Your task to perform on an android device: Open accessibility settings Image 0: 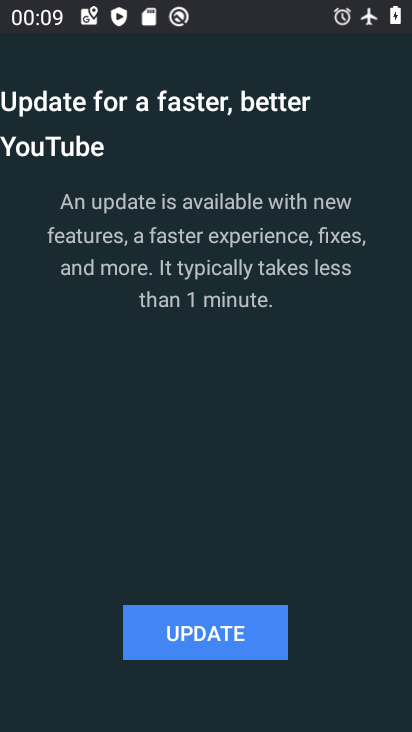
Step 0: press home button
Your task to perform on an android device: Open accessibility settings Image 1: 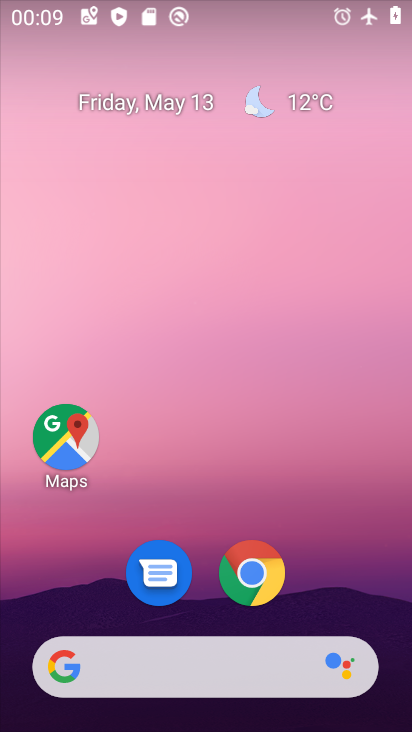
Step 1: drag from (250, 720) to (229, 65)
Your task to perform on an android device: Open accessibility settings Image 2: 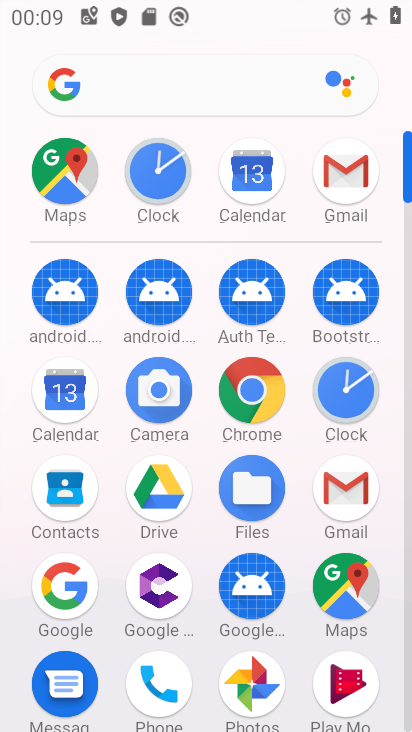
Step 2: drag from (219, 559) to (285, 11)
Your task to perform on an android device: Open accessibility settings Image 3: 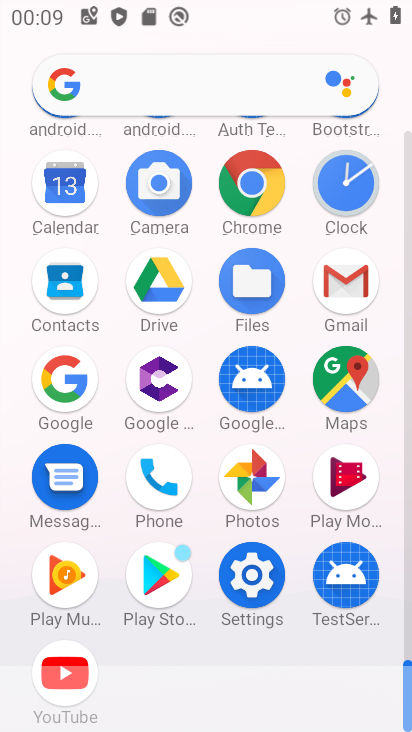
Step 3: click (275, 576)
Your task to perform on an android device: Open accessibility settings Image 4: 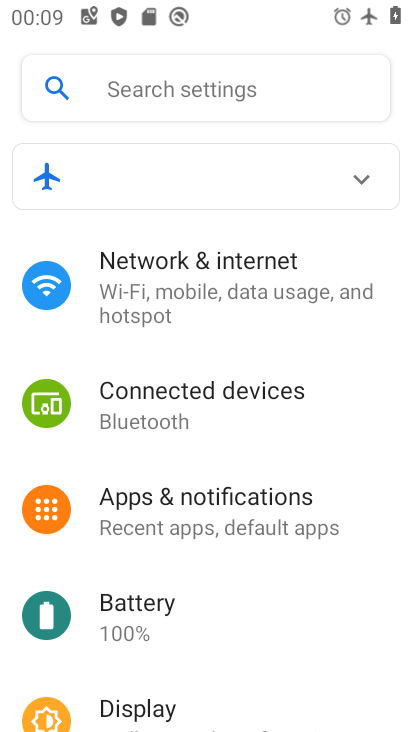
Step 4: drag from (264, 427) to (264, 81)
Your task to perform on an android device: Open accessibility settings Image 5: 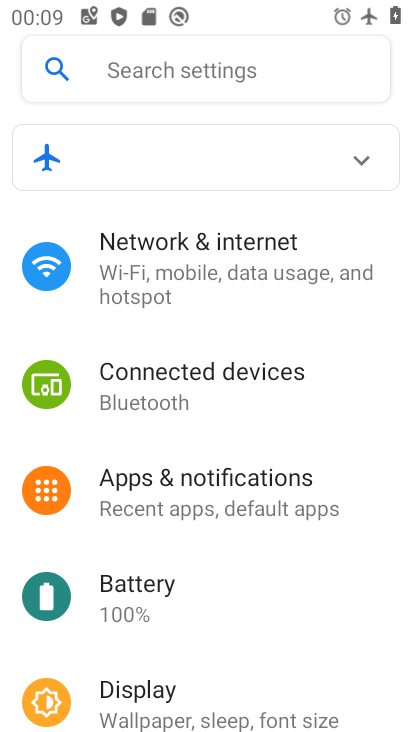
Step 5: drag from (210, 631) to (192, 296)
Your task to perform on an android device: Open accessibility settings Image 6: 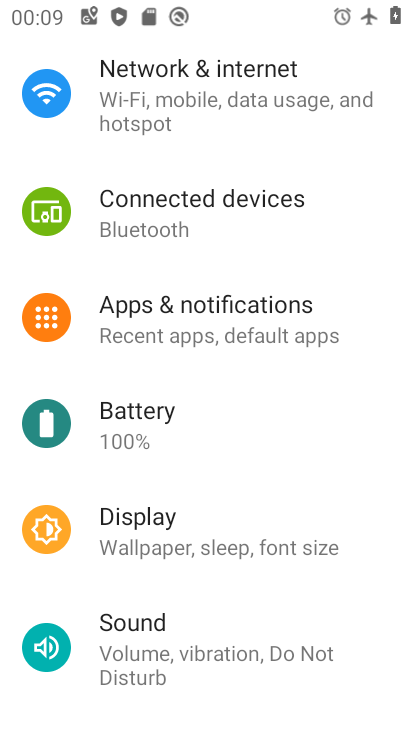
Step 6: drag from (220, 713) to (288, 271)
Your task to perform on an android device: Open accessibility settings Image 7: 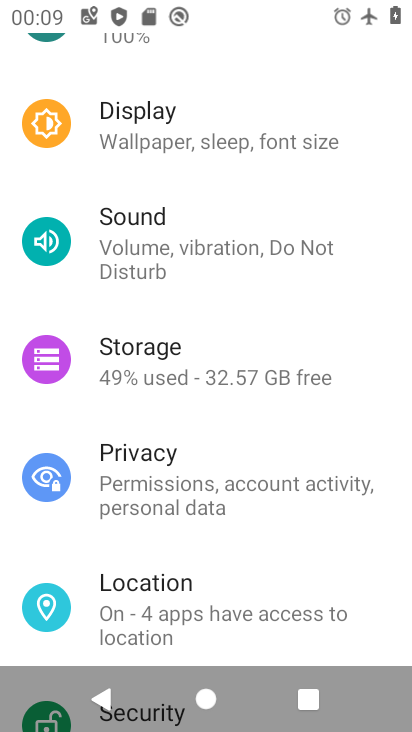
Step 7: drag from (174, 615) to (264, 164)
Your task to perform on an android device: Open accessibility settings Image 8: 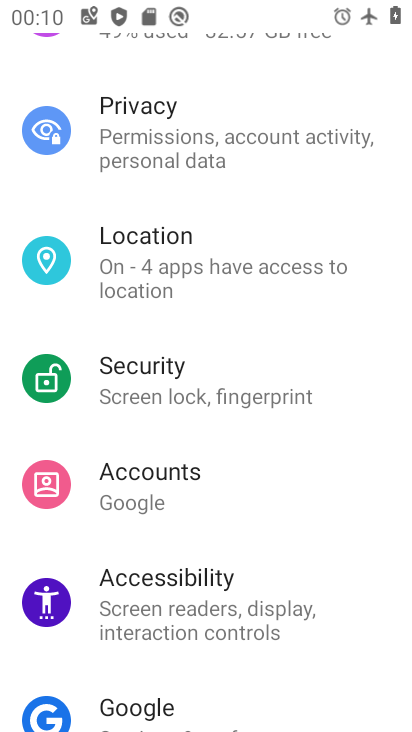
Step 8: click (211, 607)
Your task to perform on an android device: Open accessibility settings Image 9: 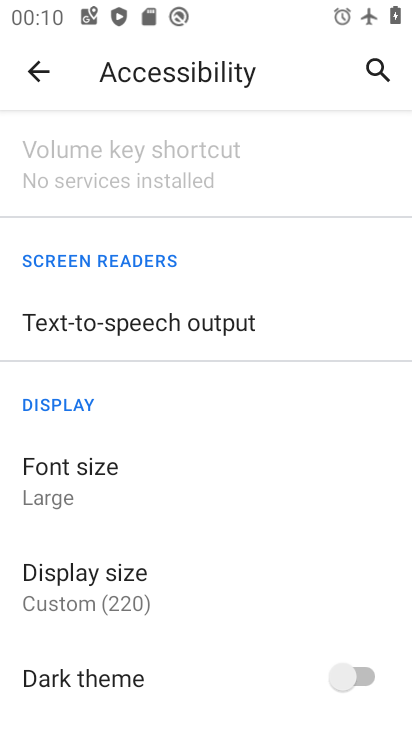
Step 9: task complete